Your task to perform on an android device: toggle wifi Image 0: 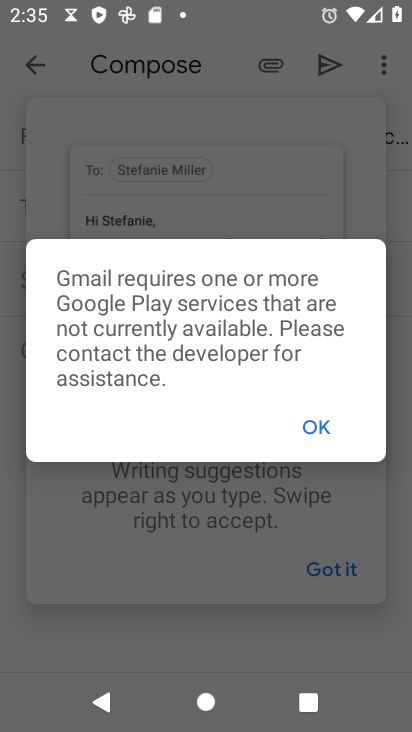
Step 0: press home button
Your task to perform on an android device: toggle wifi Image 1: 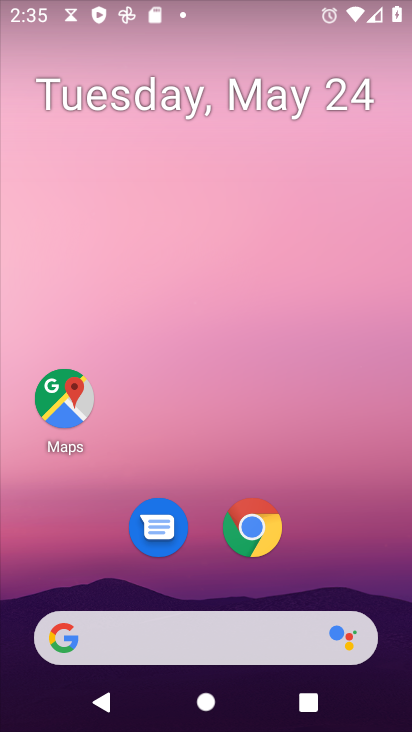
Step 1: drag from (276, 648) to (350, 42)
Your task to perform on an android device: toggle wifi Image 2: 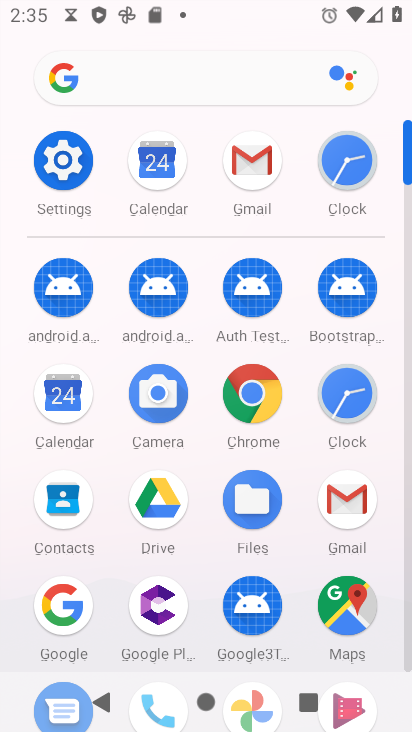
Step 2: click (77, 171)
Your task to perform on an android device: toggle wifi Image 3: 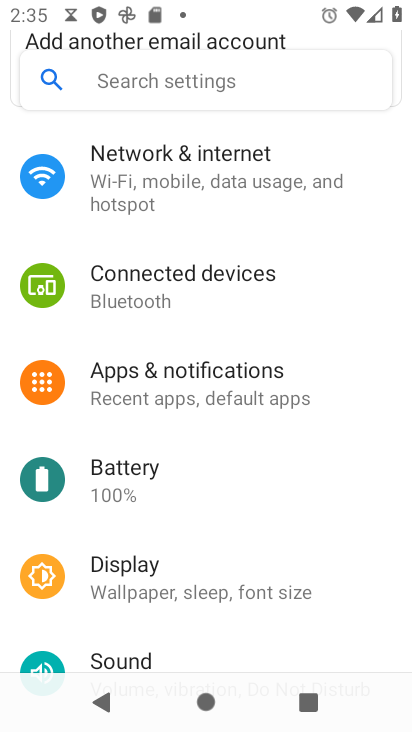
Step 3: click (276, 168)
Your task to perform on an android device: toggle wifi Image 4: 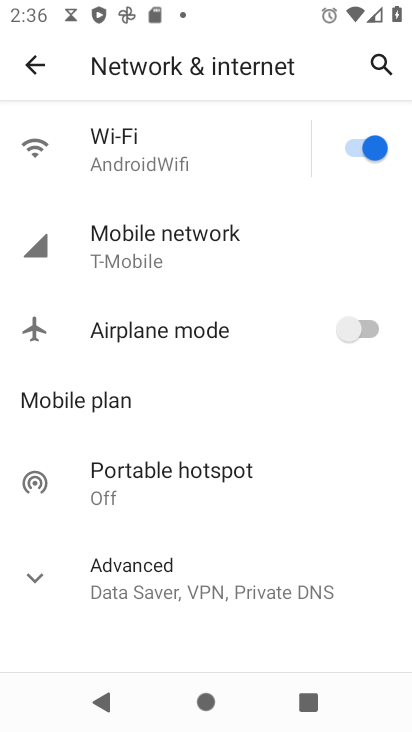
Step 4: click (356, 150)
Your task to perform on an android device: toggle wifi Image 5: 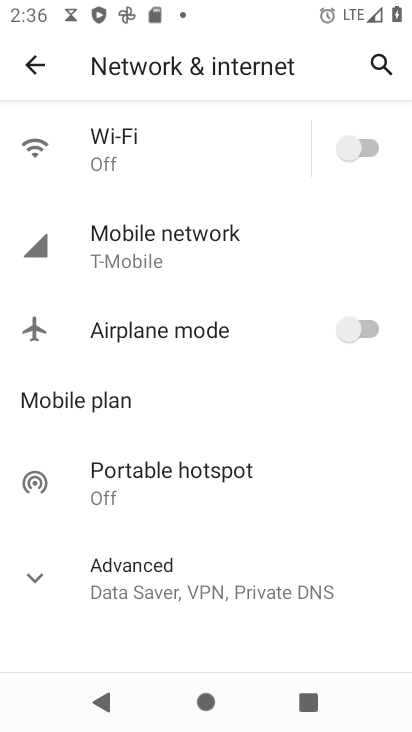
Step 5: task complete